Your task to perform on an android device: open chrome privacy settings Image 0: 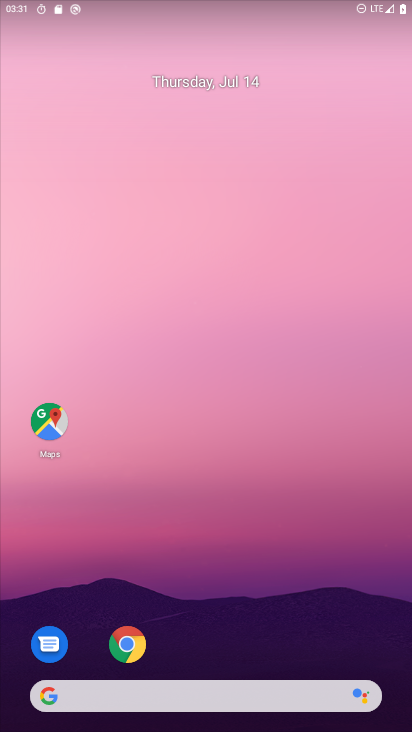
Step 0: drag from (307, 624) to (295, 32)
Your task to perform on an android device: open chrome privacy settings Image 1: 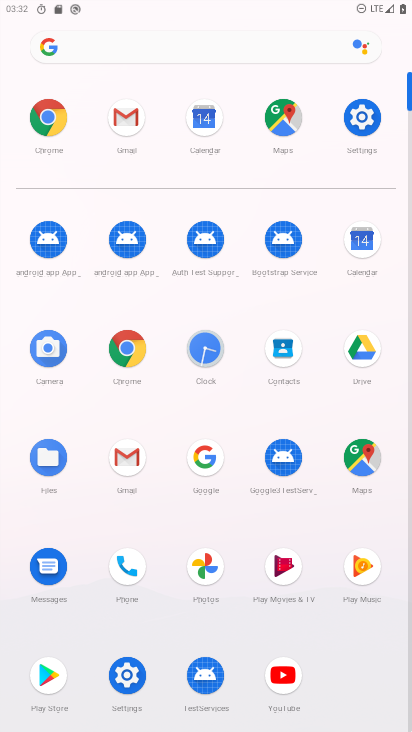
Step 1: click (128, 347)
Your task to perform on an android device: open chrome privacy settings Image 2: 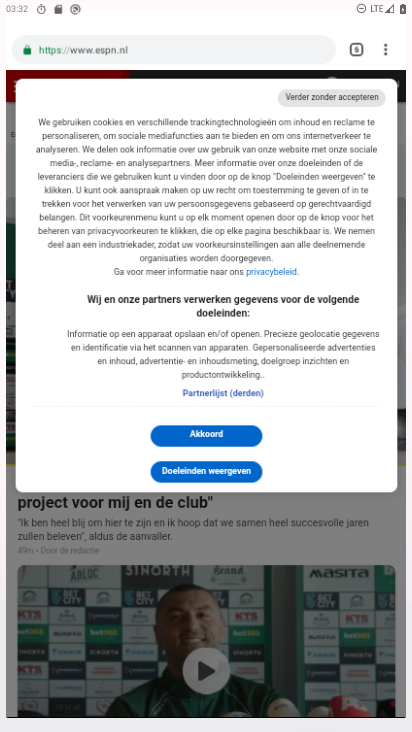
Step 2: click (132, 347)
Your task to perform on an android device: open chrome privacy settings Image 3: 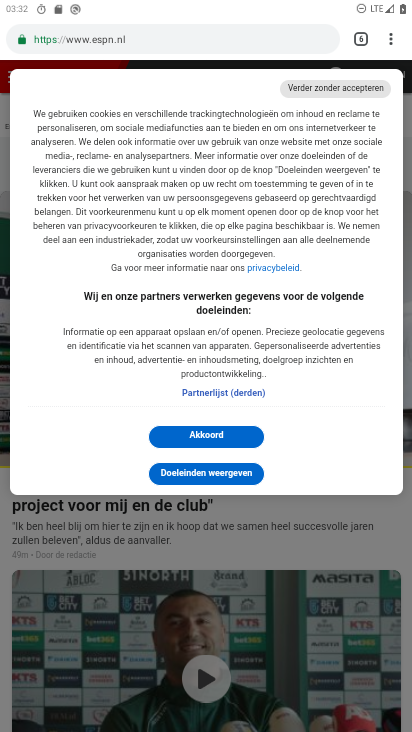
Step 3: drag from (391, 36) to (240, 477)
Your task to perform on an android device: open chrome privacy settings Image 4: 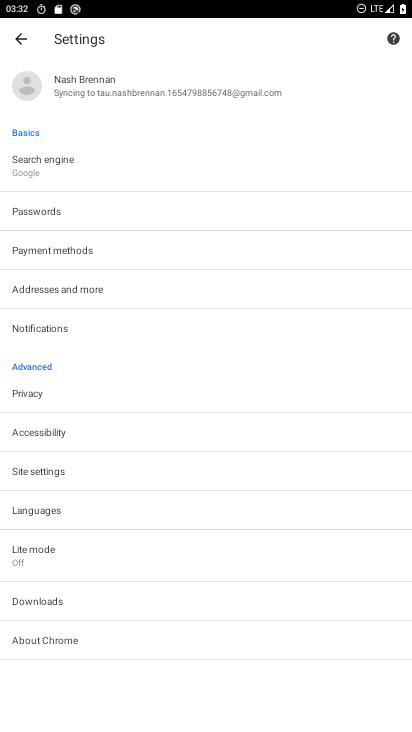
Step 4: click (33, 396)
Your task to perform on an android device: open chrome privacy settings Image 5: 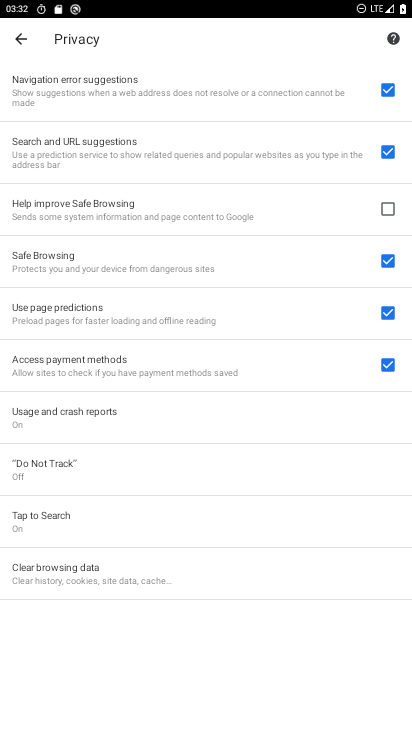
Step 5: task complete